Your task to perform on an android device: Open notification settings Image 0: 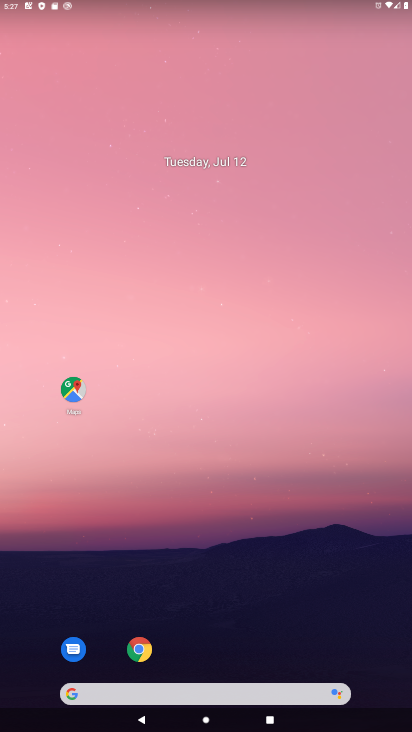
Step 0: drag from (199, 684) to (179, 300)
Your task to perform on an android device: Open notification settings Image 1: 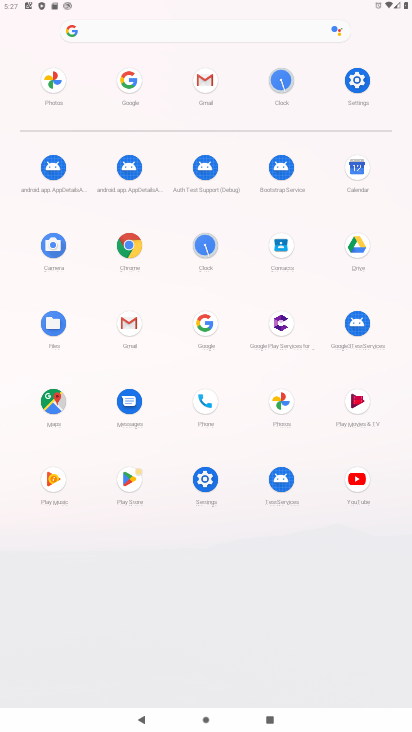
Step 1: click (205, 480)
Your task to perform on an android device: Open notification settings Image 2: 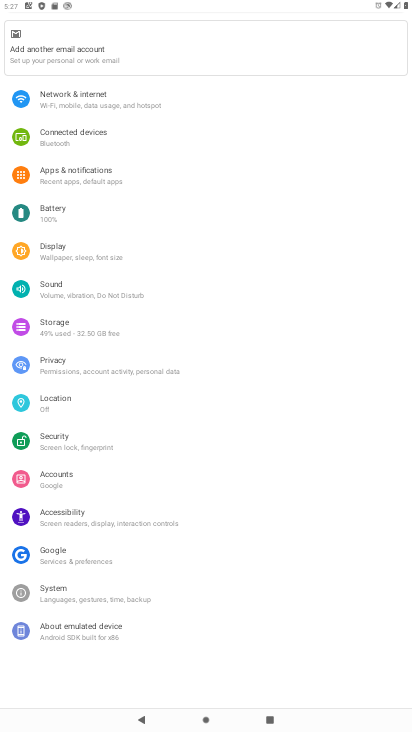
Step 2: click (81, 176)
Your task to perform on an android device: Open notification settings Image 3: 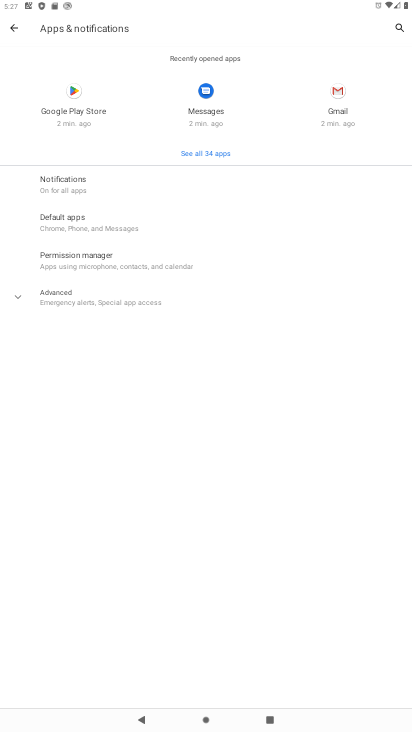
Step 3: click (68, 191)
Your task to perform on an android device: Open notification settings Image 4: 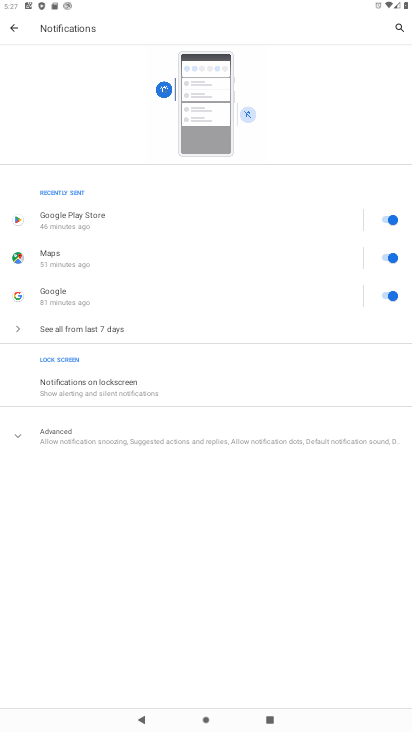
Step 4: task complete